Your task to perform on an android device: turn notification dots on Image 0: 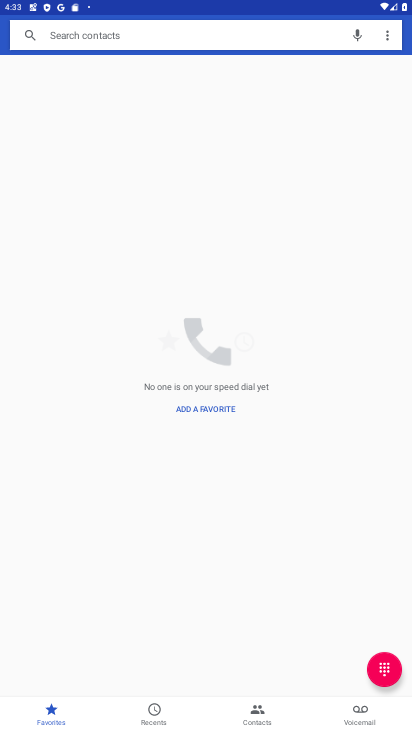
Step 0: press home button
Your task to perform on an android device: turn notification dots on Image 1: 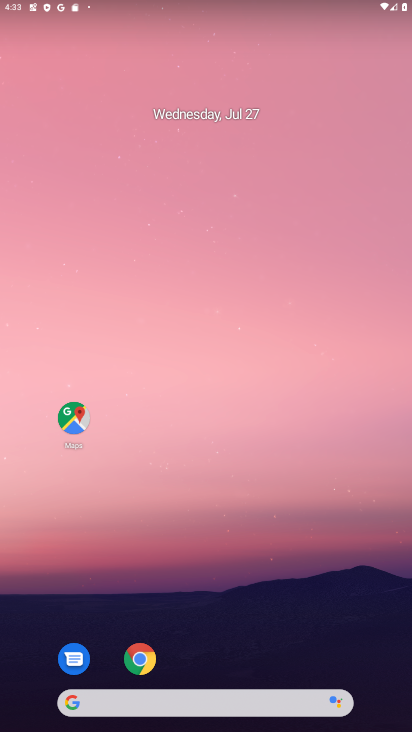
Step 1: drag from (299, 608) to (255, 172)
Your task to perform on an android device: turn notification dots on Image 2: 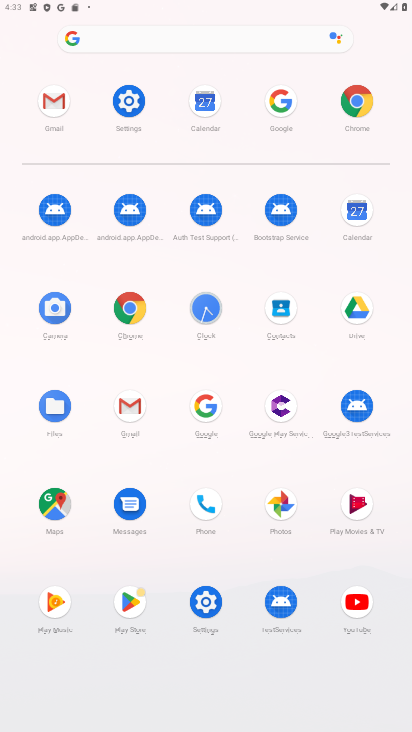
Step 2: click (126, 95)
Your task to perform on an android device: turn notification dots on Image 3: 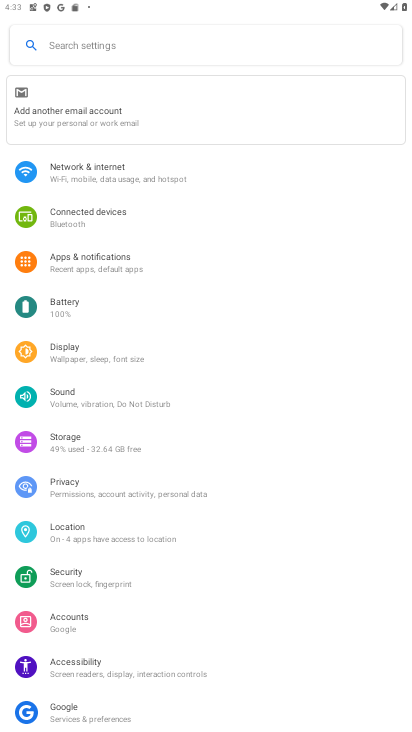
Step 3: click (138, 263)
Your task to perform on an android device: turn notification dots on Image 4: 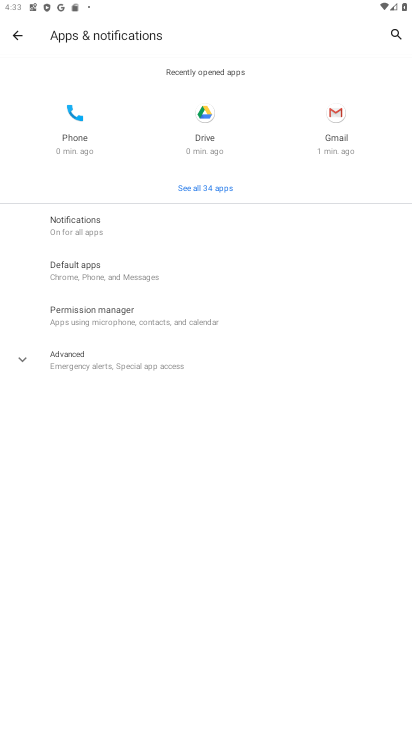
Step 4: click (201, 229)
Your task to perform on an android device: turn notification dots on Image 5: 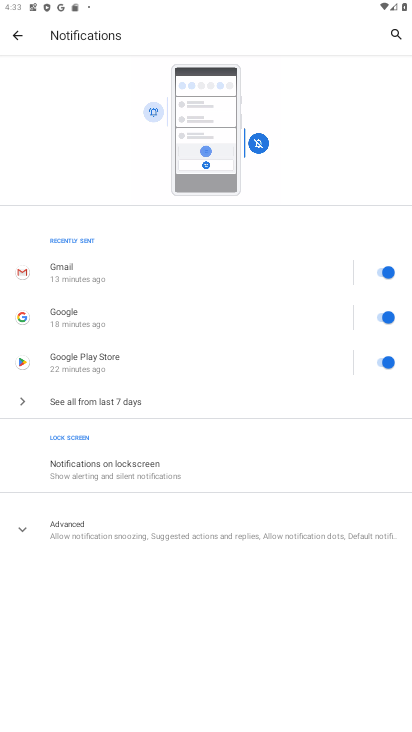
Step 5: click (320, 524)
Your task to perform on an android device: turn notification dots on Image 6: 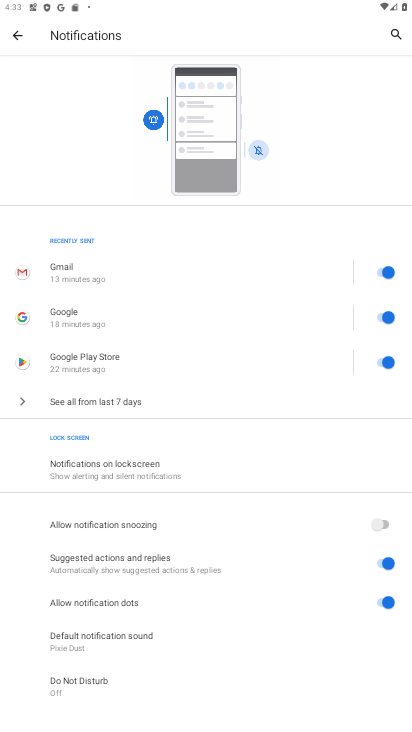
Step 6: task complete